Your task to perform on an android device: check battery use Image 0: 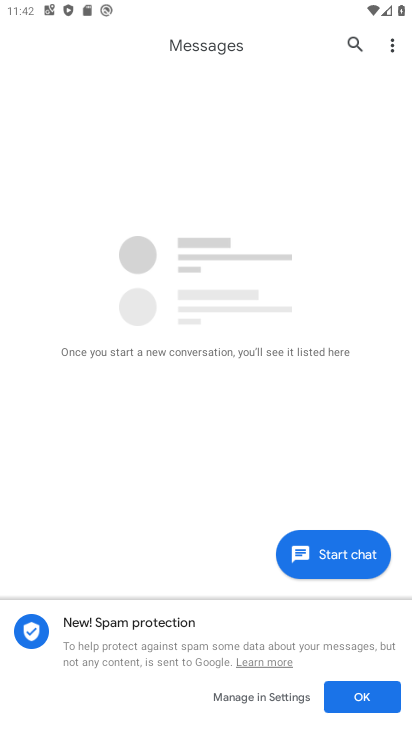
Step 0: press home button
Your task to perform on an android device: check battery use Image 1: 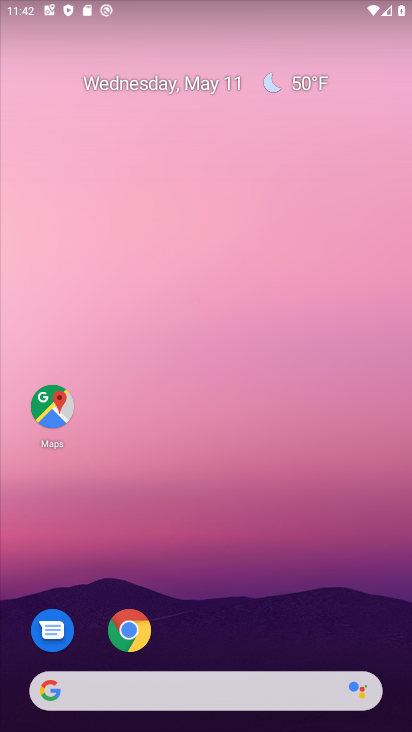
Step 1: drag from (212, 718) to (212, 127)
Your task to perform on an android device: check battery use Image 2: 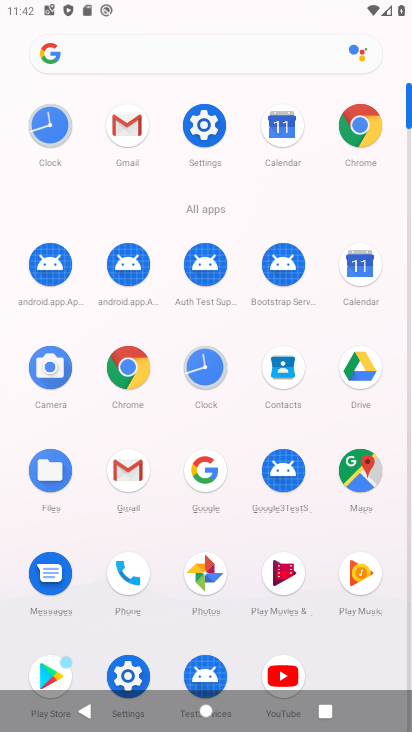
Step 2: click (202, 119)
Your task to perform on an android device: check battery use Image 3: 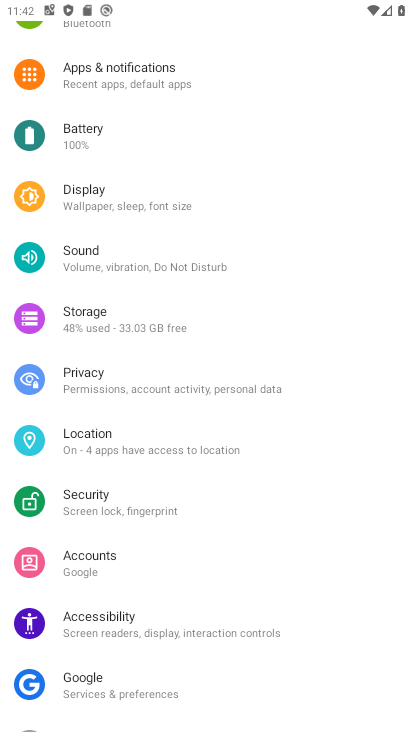
Step 3: click (73, 136)
Your task to perform on an android device: check battery use Image 4: 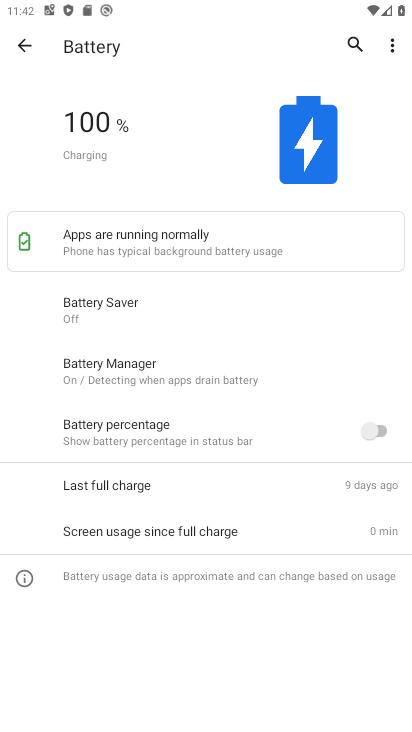
Step 4: click (389, 48)
Your task to perform on an android device: check battery use Image 5: 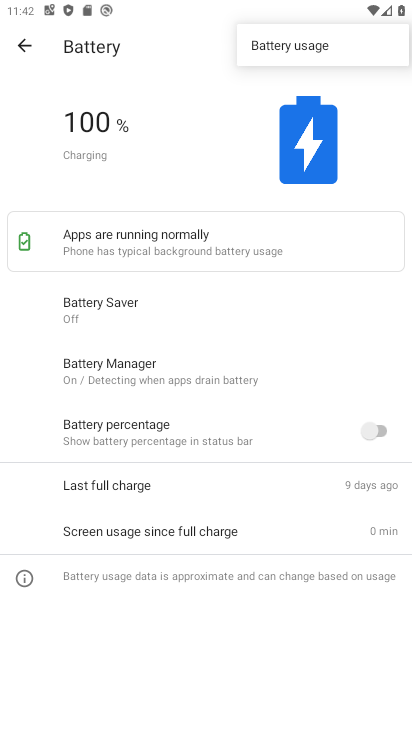
Step 5: click (317, 45)
Your task to perform on an android device: check battery use Image 6: 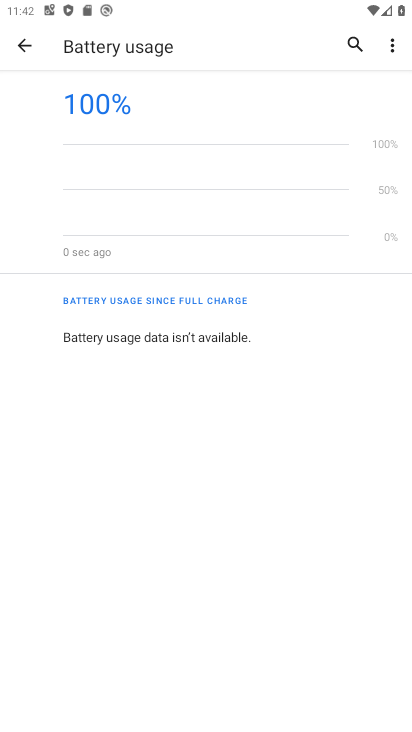
Step 6: task complete